Your task to perform on an android device: check out phone information Image 0: 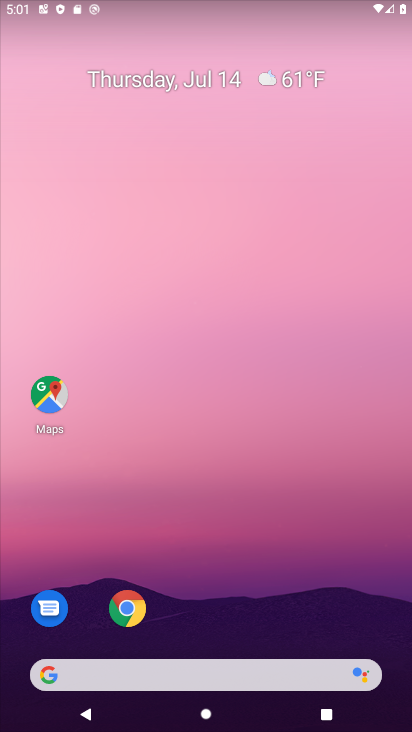
Step 0: drag from (324, 357) to (329, 100)
Your task to perform on an android device: check out phone information Image 1: 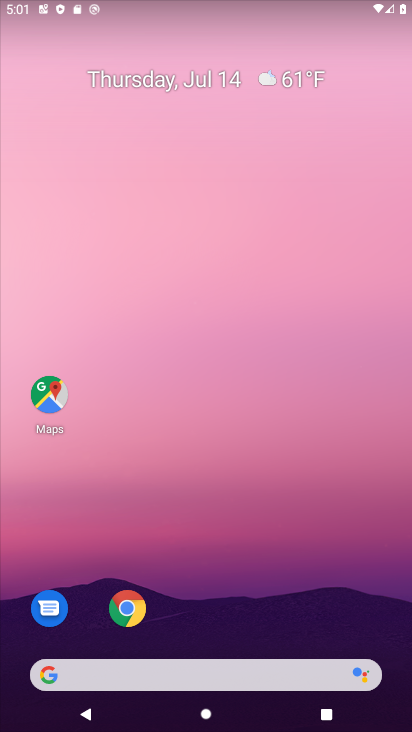
Step 1: drag from (340, 616) to (302, 61)
Your task to perform on an android device: check out phone information Image 2: 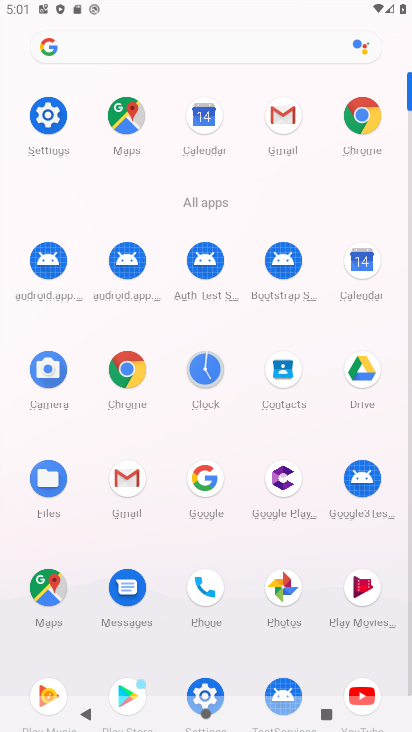
Step 2: click (209, 577)
Your task to perform on an android device: check out phone information Image 3: 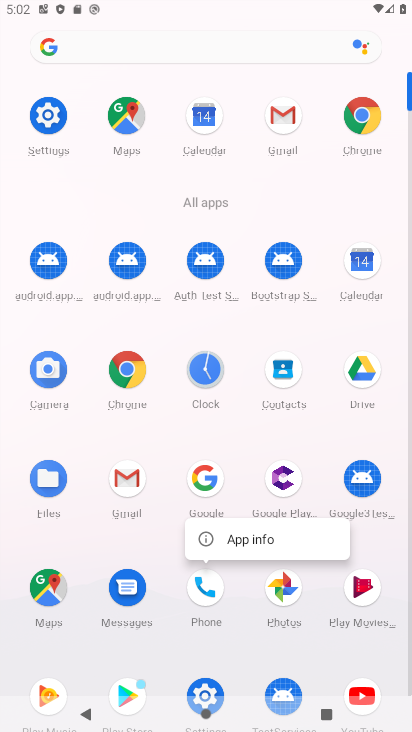
Step 3: click (234, 544)
Your task to perform on an android device: check out phone information Image 4: 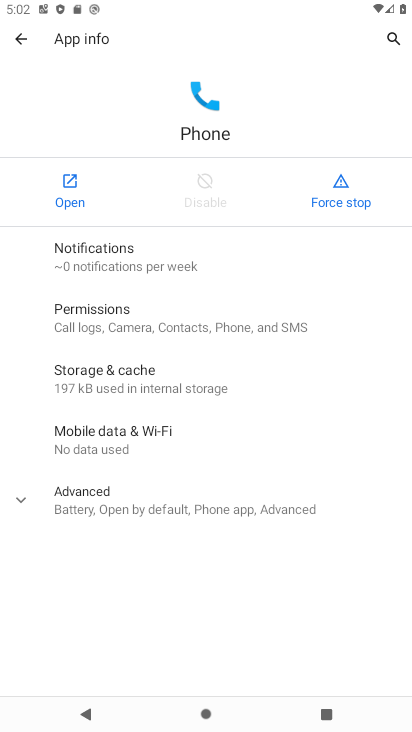
Step 4: click (153, 506)
Your task to perform on an android device: check out phone information Image 5: 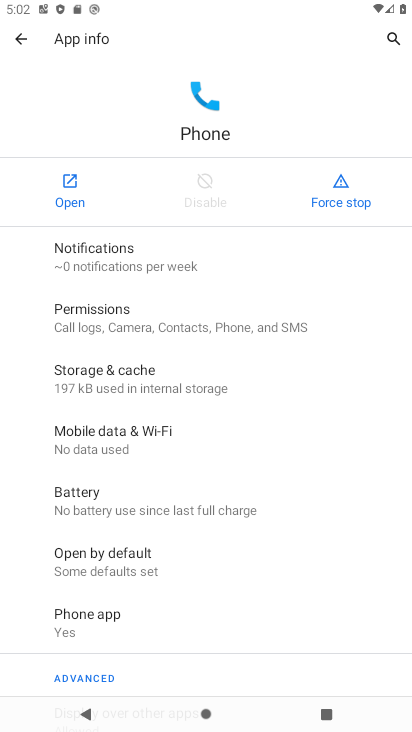
Step 5: task complete